Your task to perform on an android device: toggle translation in the chrome app Image 0: 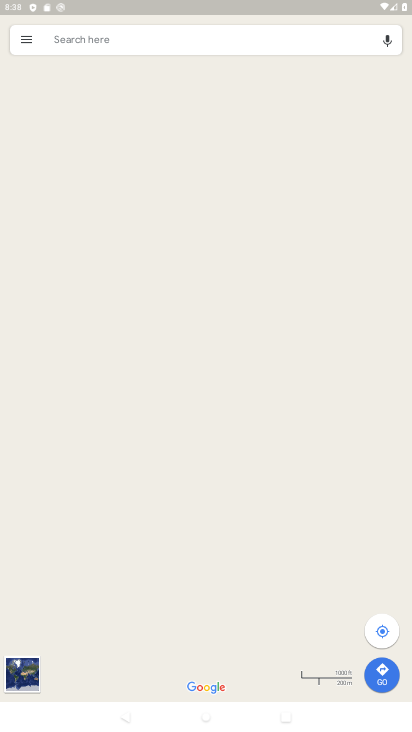
Step 0: press home button
Your task to perform on an android device: toggle translation in the chrome app Image 1: 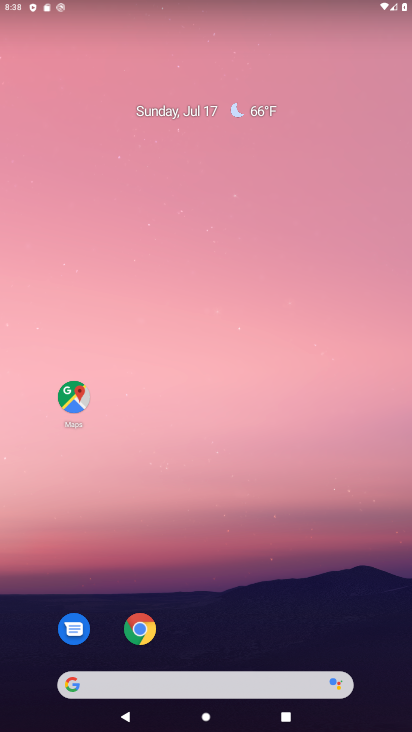
Step 1: click (137, 626)
Your task to perform on an android device: toggle translation in the chrome app Image 2: 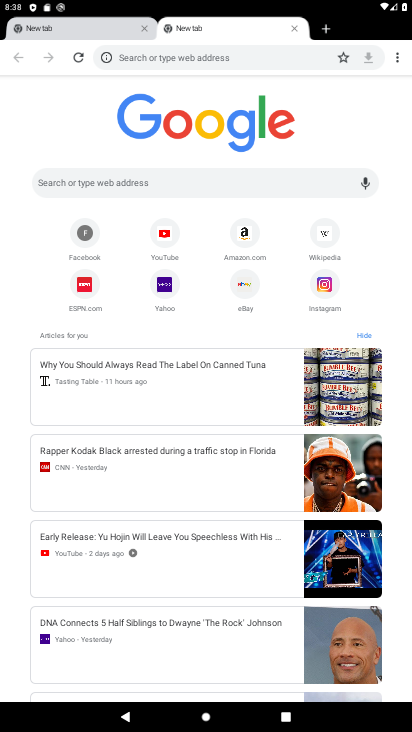
Step 2: click (394, 54)
Your task to perform on an android device: toggle translation in the chrome app Image 3: 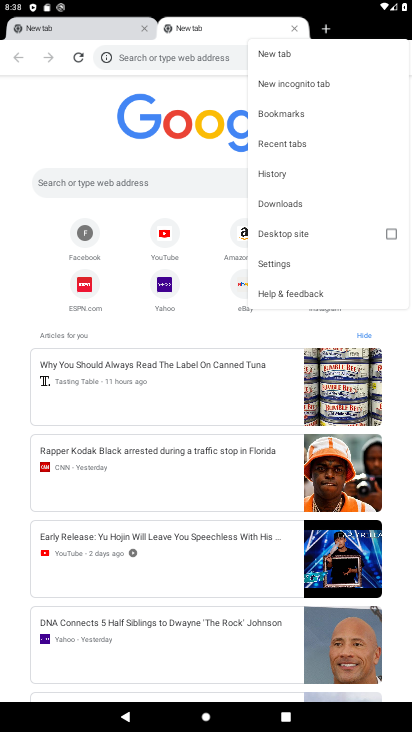
Step 3: click (299, 261)
Your task to perform on an android device: toggle translation in the chrome app Image 4: 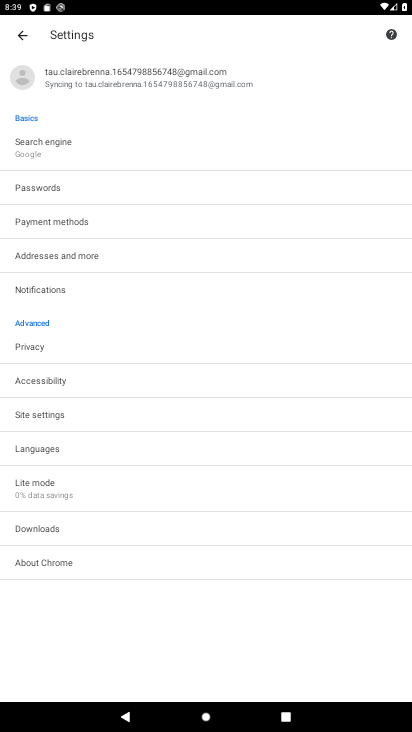
Step 4: click (76, 448)
Your task to perform on an android device: toggle translation in the chrome app Image 5: 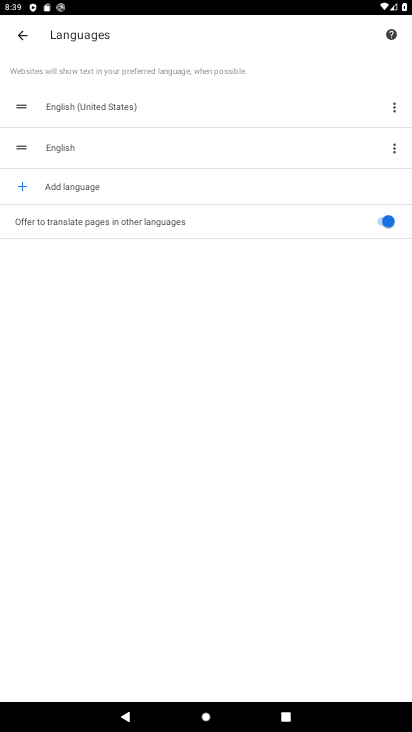
Step 5: click (378, 217)
Your task to perform on an android device: toggle translation in the chrome app Image 6: 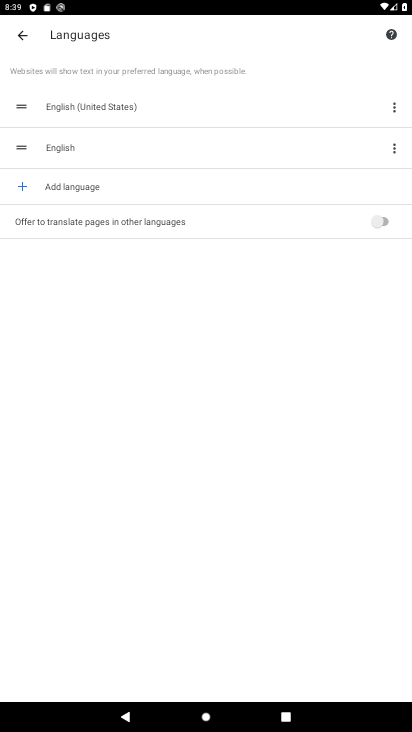
Step 6: task complete